Your task to perform on an android device: toggle priority inbox in the gmail app Image 0: 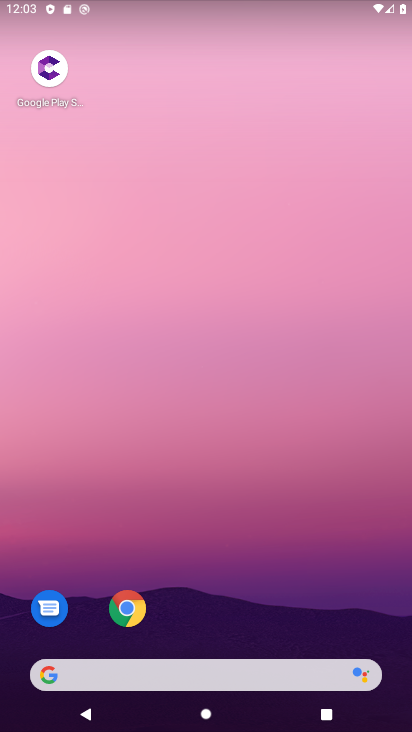
Step 0: drag from (266, 658) to (296, 317)
Your task to perform on an android device: toggle priority inbox in the gmail app Image 1: 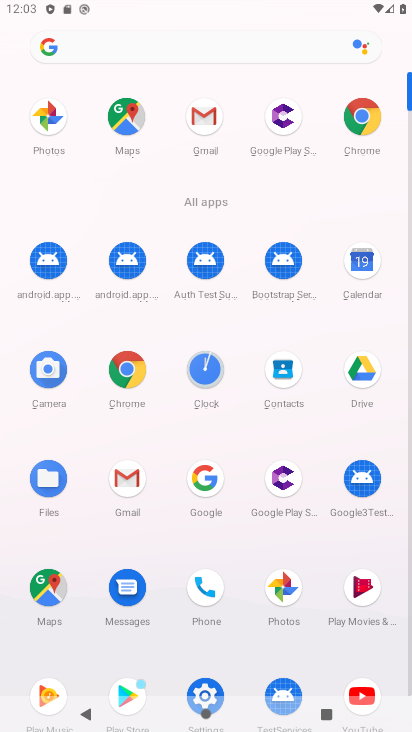
Step 1: click (200, 680)
Your task to perform on an android device: toggle priority inbox in the gmail app Image 2: 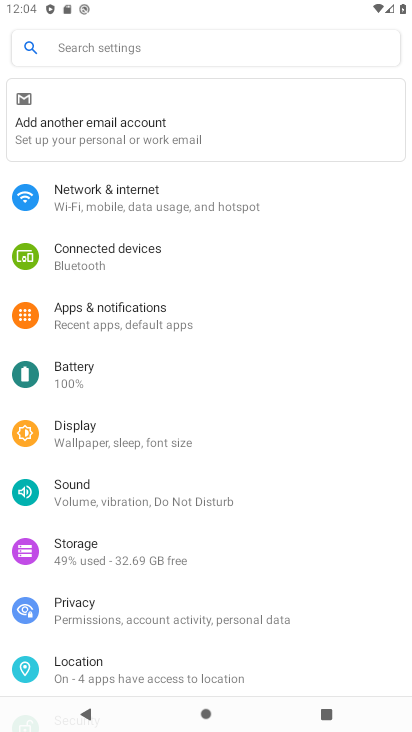
Step 2: press home button
Your task to perform on an android device: toggle priority inbox in the gmail app Image 3: 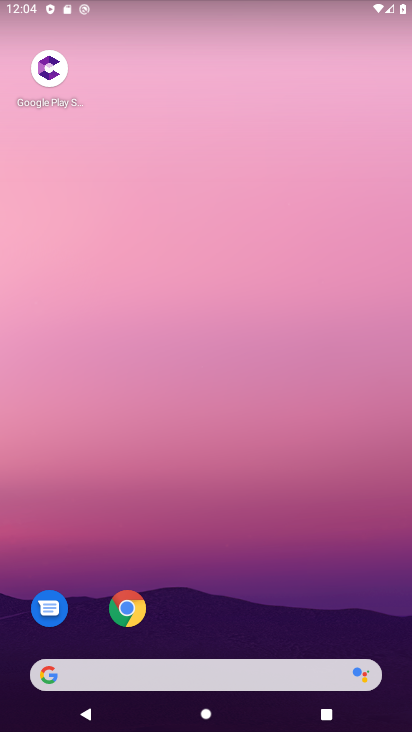
Step 3: drag from (238, 712) to (299, 215)
Your task to perform on an android device: toggle priority inbox in the gmail app Image 4: 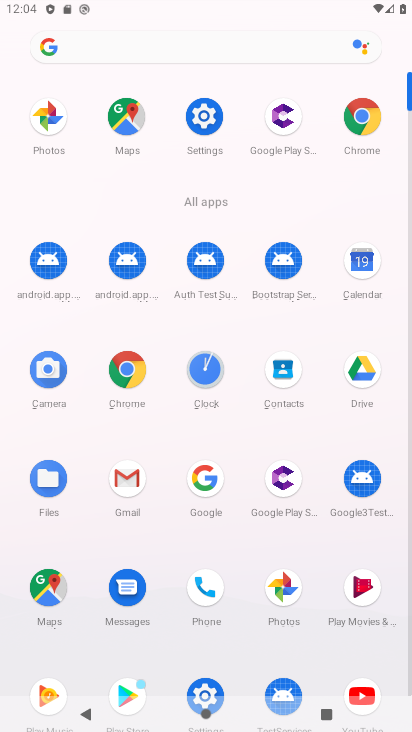
Step 4: click (140, 480)
Your task to perform on an android device: toggle priority inbox in the gmail app Image 5: 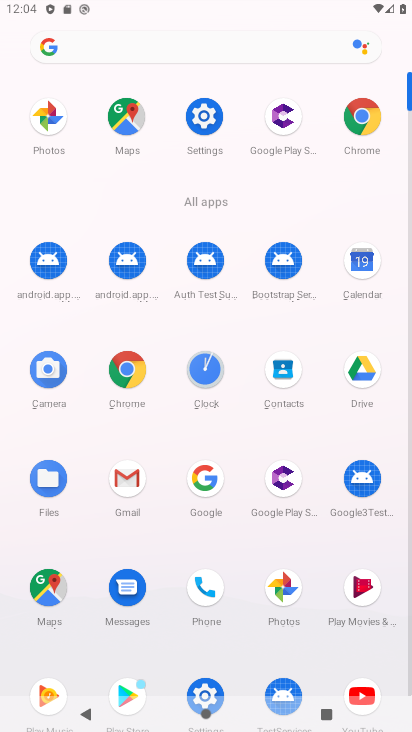
Step 5: click (133, 485)
Your task to perform on an android device: toggle priority inbox in the gmail app Image 6: 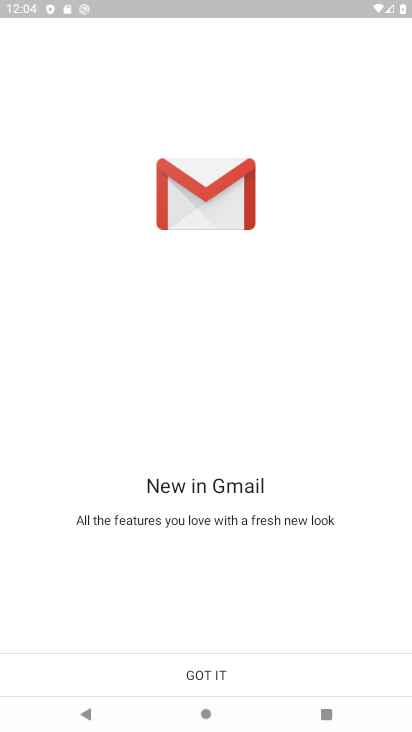
Step 6: click (201, 672)
Your task to perform on an android device: toggle priority inbox in the gmail app Image 7: 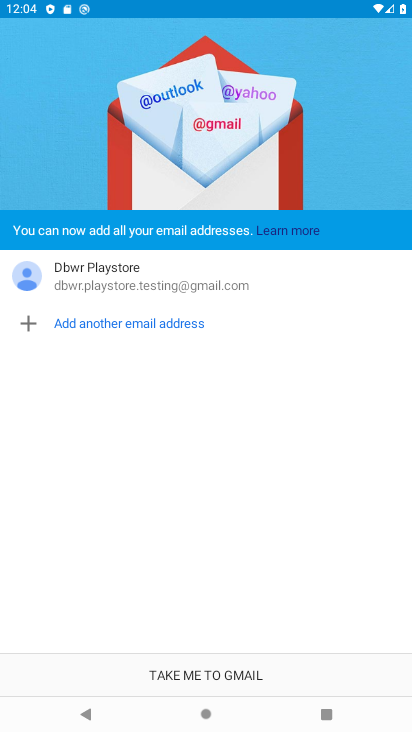
Step 7: click (230, 667)
Your task to perform on an android device: toggle priority inbox in the gmail app Image 8: 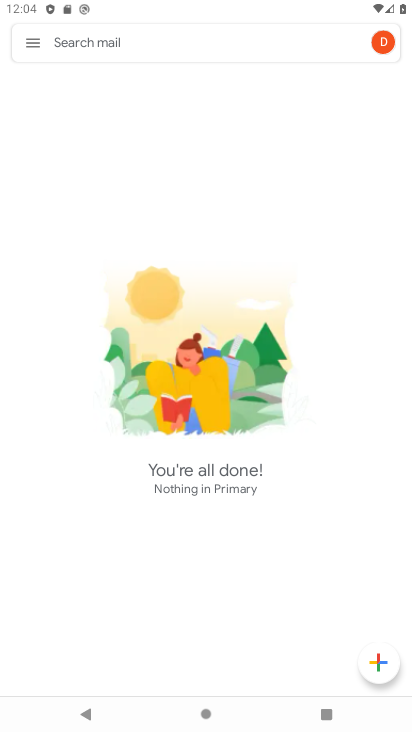
Step 8: click (36, 38)
Your task to perform on an android device: toggle priority inbox in the gmail app Image 9: 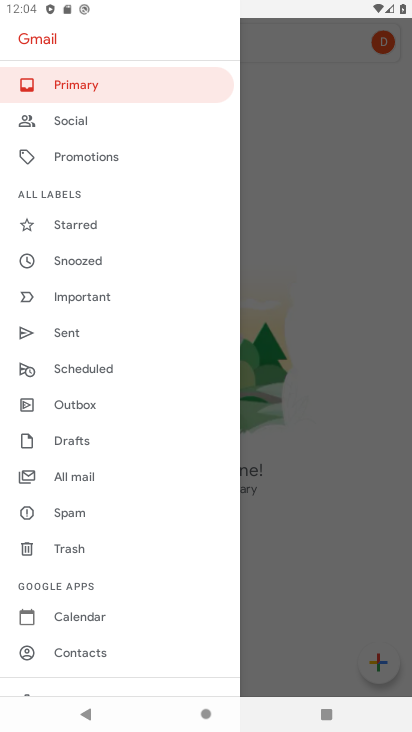
Step 9: drag from (68, 590) to (146, 463)
Your task to perform on an android device: toggle priority inbox in the gmail app Image 10: 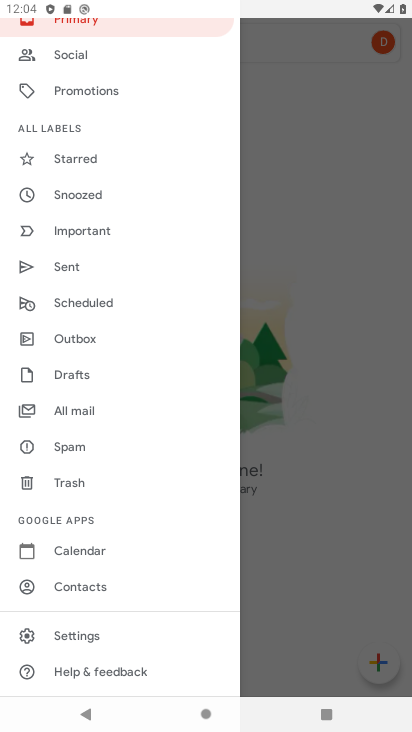
Step 10: click (74, 630)
Your task to perform on an android device: toggle priority inbox in the gmail app Image 11: 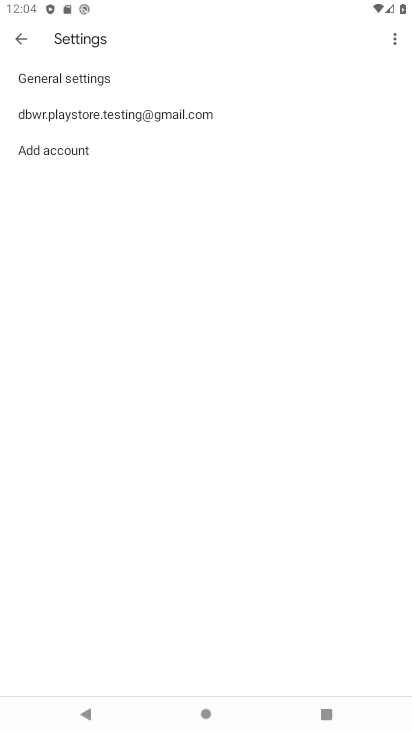
Step 11: click (100, 118)
Your task to perform on an android device: toggle priority inbox in the gmail app Image 12: 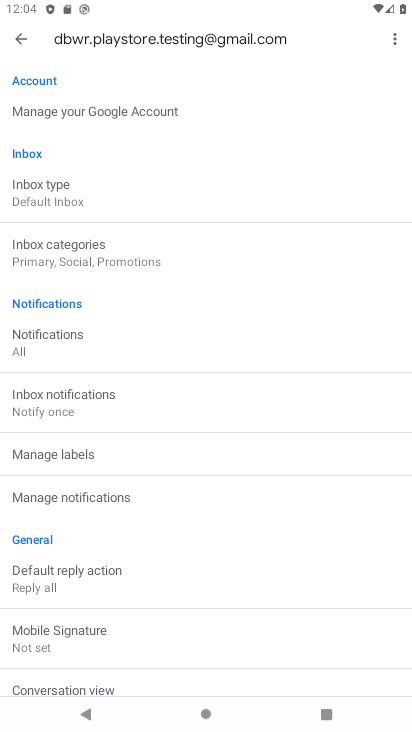
Step 12: drag from (152, 538) to (244, 239)
Your task to perform on an android device: toggle priority inbox in the gmail app Image 13: 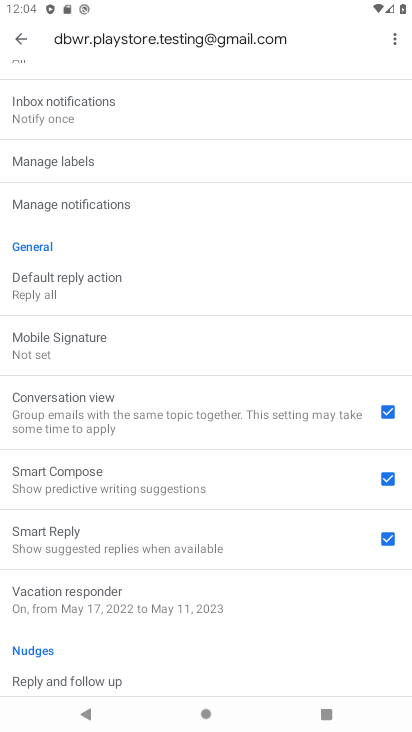
Step 13: drag from (186, 547) to (281, 317)
Your task to perform on an android device: toggle priority inbox in the gmail app Image 14: 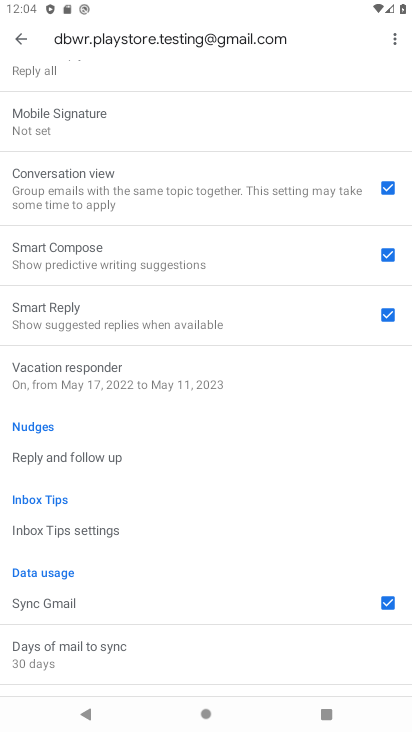
Step 14: drag from (232, 498) to (251, 401)
Your task to perform on an android device: toggle priority inbox in the gmail app Image 15: 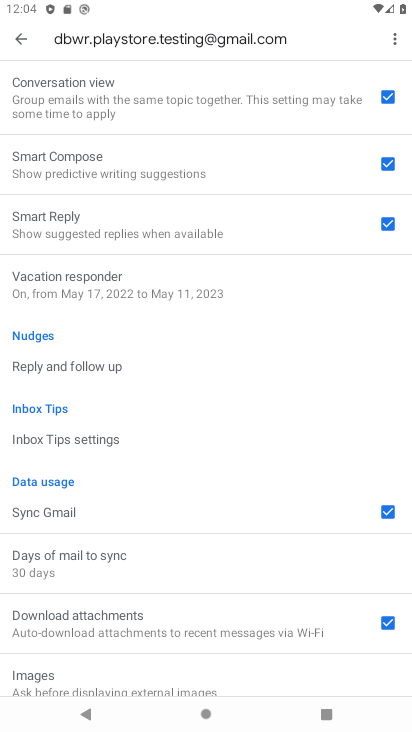
Step 15: drag from (225, 545) to (241, 435)
Your task to perform on an android device: toggle priority inbox in the gmail app Image 16: 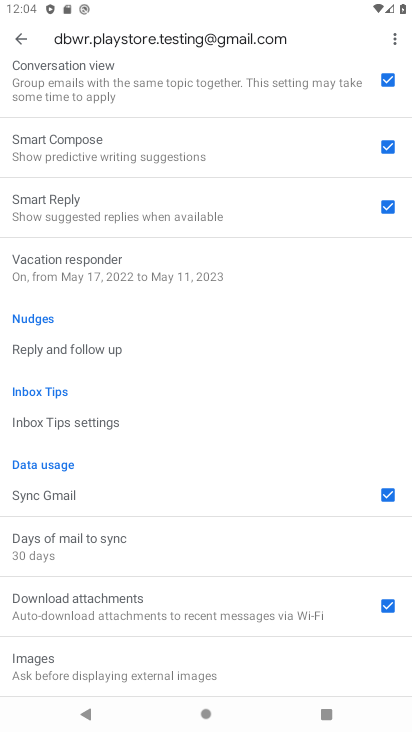
Step 16: drag from (237, 239) to (275, 624)
Your task to perform on an android device: toggle priority inbox in the gmail app Image 17: 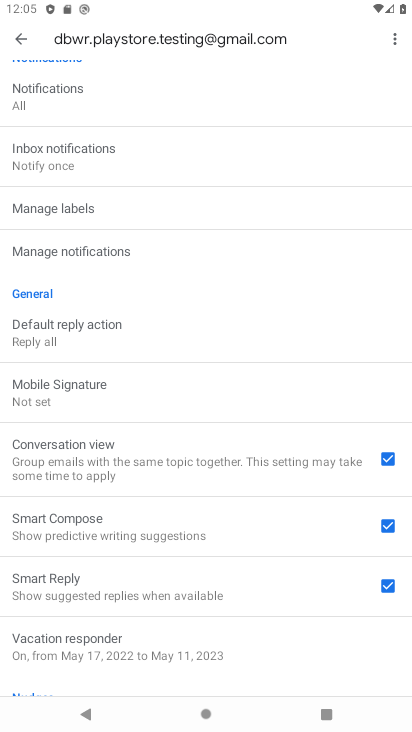
Step 17: drag from (135, 297) to (187, 560)
Your task to perform on an android device: toggle priority inbox in the gmail app Image 18: 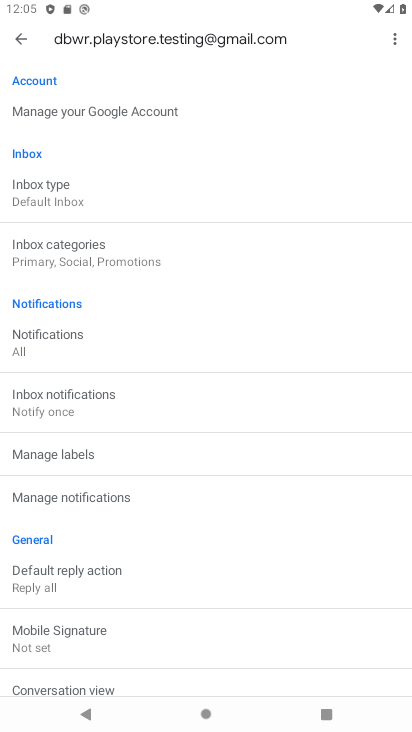
Step 18: click (90, 192)
Your task to perform on an android device: toggle priority inbox in the gmail app Image 19: 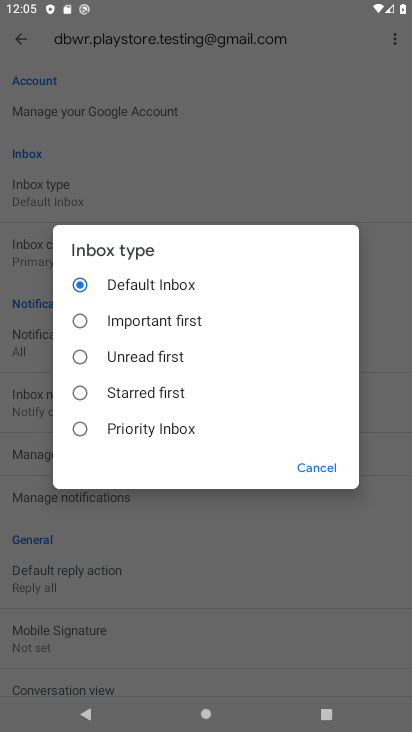
Step 19: click (135, 436)
Your task to perform on an android device: toggle priority inbox in the gmail app Image 20: 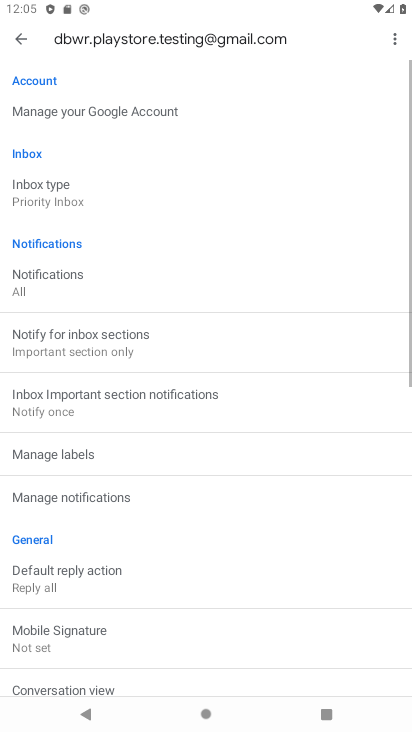
Step 20: task complete